Your task to perform on an android device: Open Wikipedia Image 0: 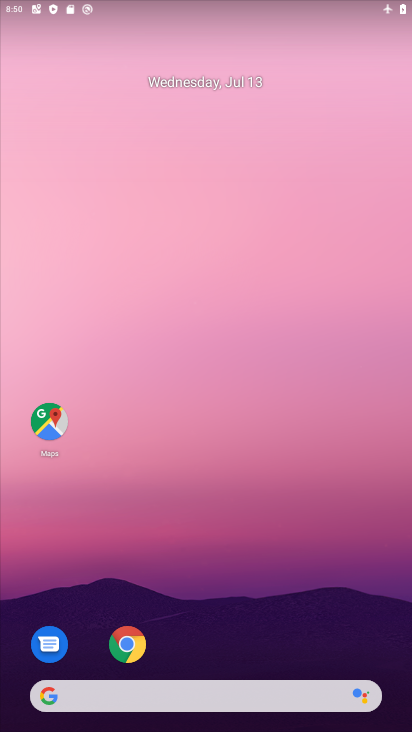
Step 0: click (227, 165)
Your task to perform on an android device: Open Wikipedia Image 1: 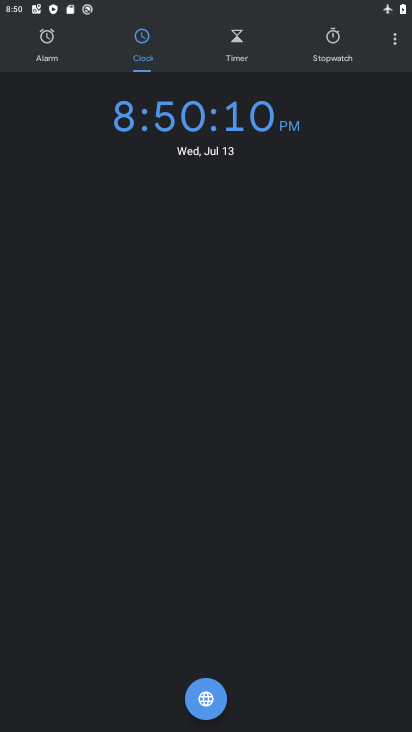
Step 1: press home button
Your task to perform on an android device: Open Wikipedia Image 2: 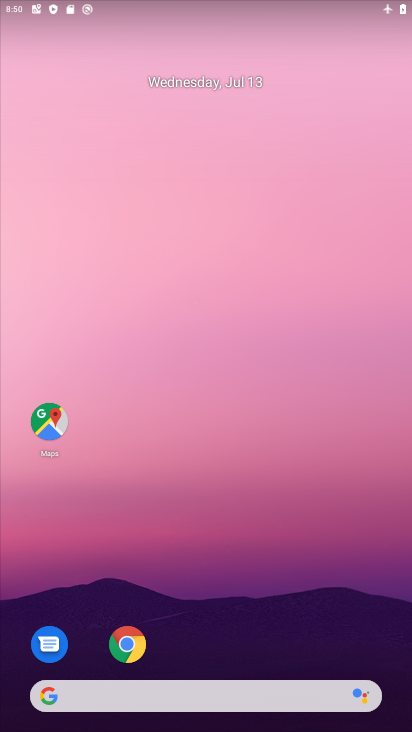
Step 2: click (130, 641)
Your task to perform on an android device: Open Wikipedia Image 3: 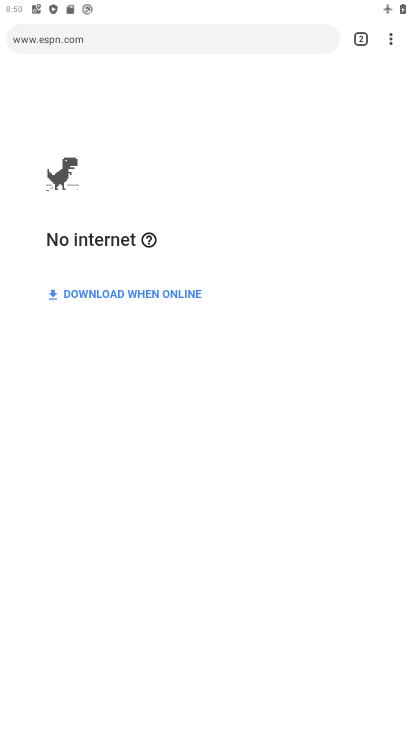
Step 3: task complete